Your task to perform on an android device: Check the news Image 0: 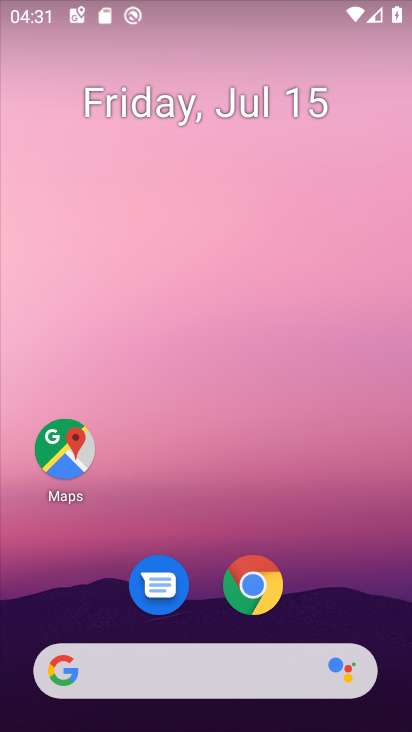
Step 0: click (264, 679)
Your task to perform on an android device: Check the news Image 1: 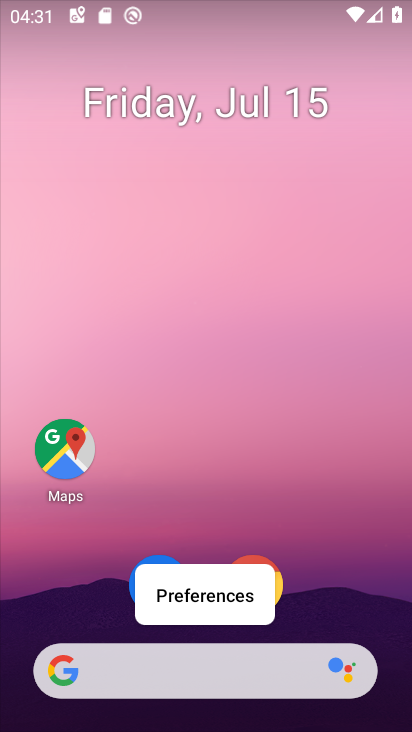
Step 1: click (186, 669)
Your task to perform on an android device: Check the news Image 2: 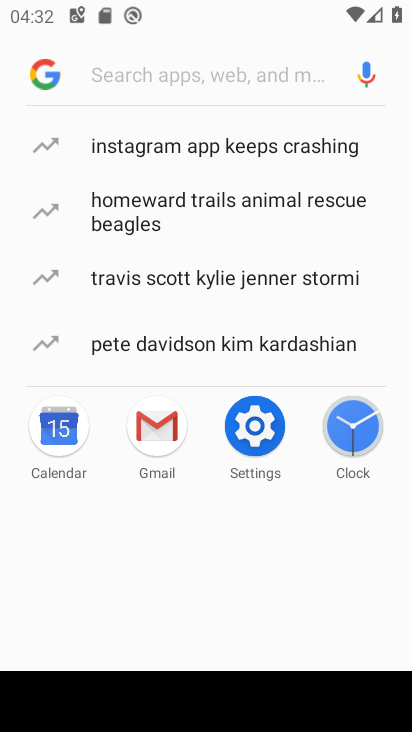
Step 2: type "News"
Your task to perform on an android device: Check the news Image 3: 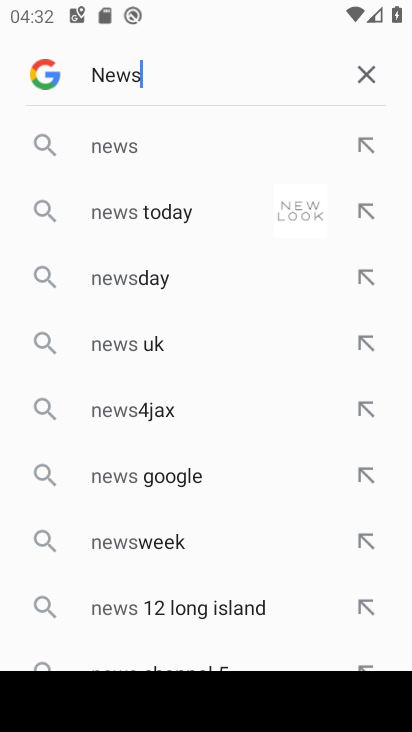
Step 3: click (114, 149)
Your task to perform on an android device: Check the news Image 4: 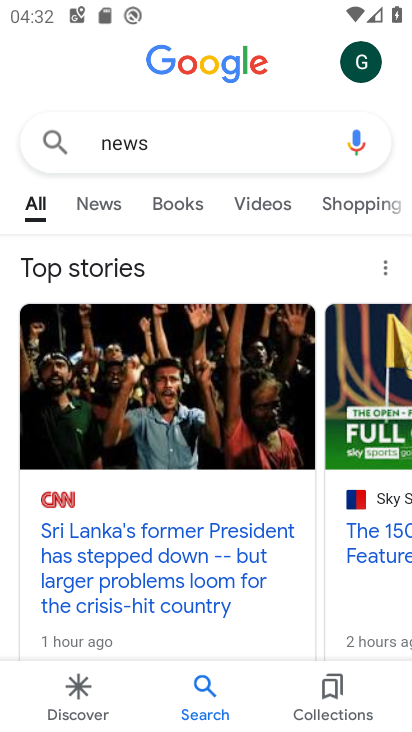
Step 4: drag from (181, 402) to (213, 227)
Your task to perform on an android device: Check the news Image 5: 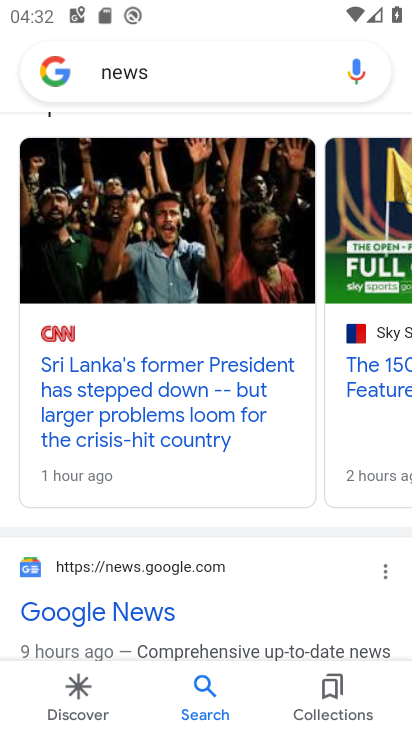
Step 5: drag from (137, 219) to (163, 440)
Your task to perform on an android device: Check the news Image 6: 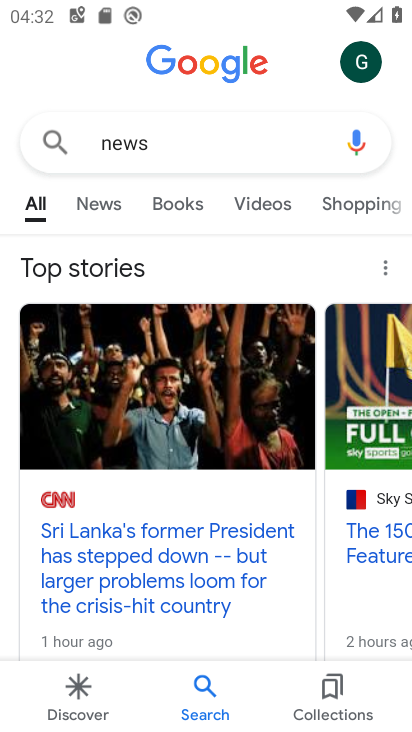
Step 6: click (106, 202)
Your task to perform on an android device: Check the news Image 7: 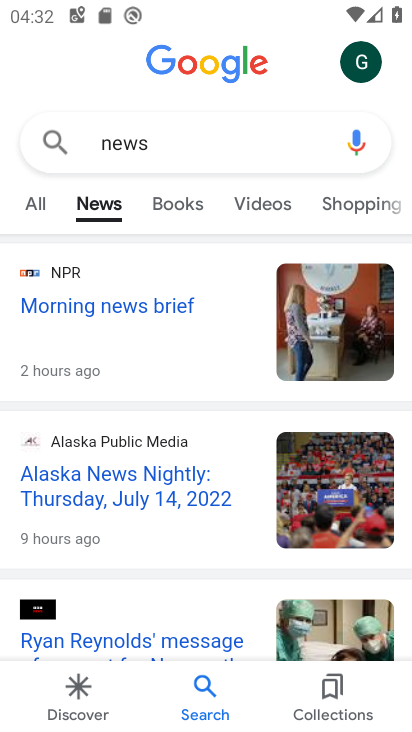
Step 7: click (34, 197)
Your task to perform on an android device: Check the news Image 8: 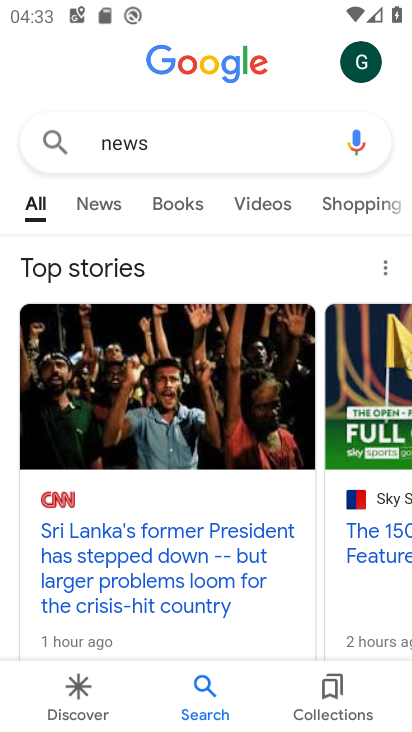
Step 8: click (198, 573)
Your task to perform on an android device: Check the news Image 9: 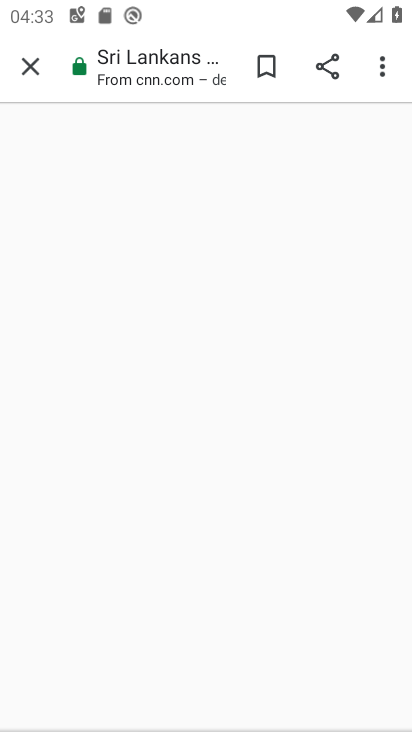
Step 9: task complete